Your task to perform on an android device: open a bookmark in the chrome app Image 0: 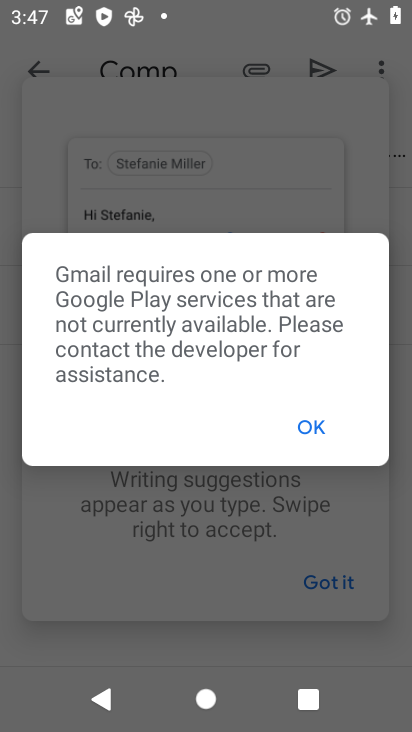
Step 0: press home button
Your task to perform on an android device: open a bookmark in the chrome app Image 1: 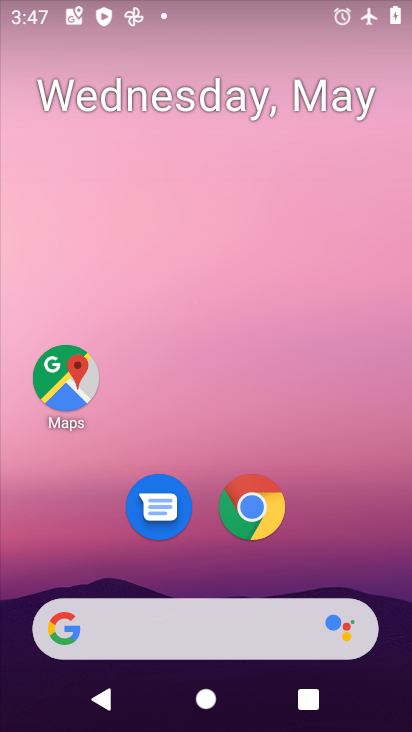
Step 1: click (266, 496)
Your task to perform on an android device: open a bookmark in the chrome app Image 2: 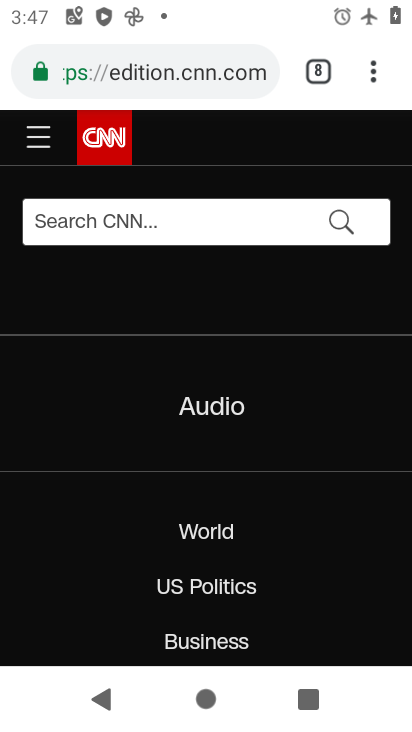
Step 2: click (366, 57)
Your task to perform on an android device: open a bookmark in the chrome app Image 3: 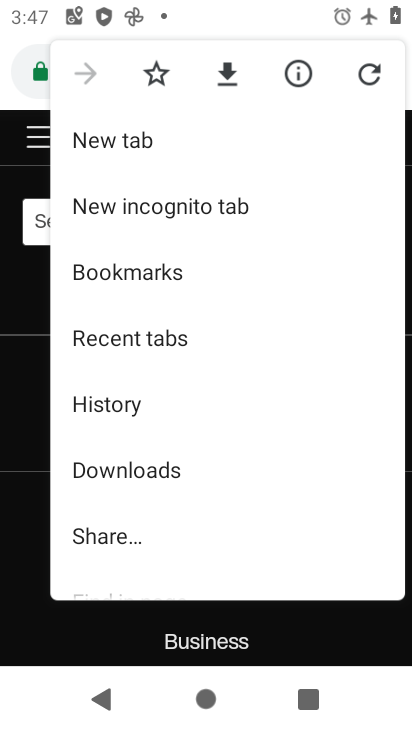
Step 3: click (81, 287)
Your task to perform on an android device: open a bookmark in the chrome app Image 4: 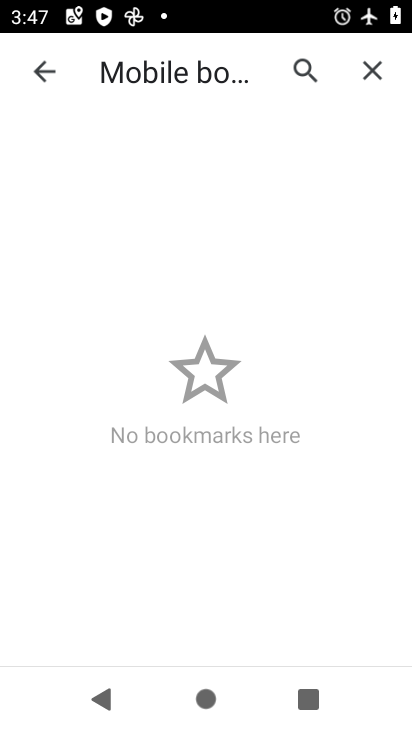
Step 4: task complete